Your task to perform on an android device: Open internet settings Image 0: 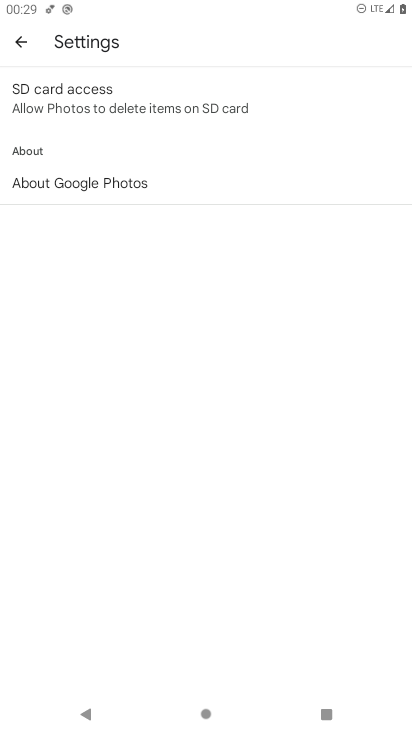
Step 0: press home button
Your task to perform on an android device: Open internet settings Image 1: 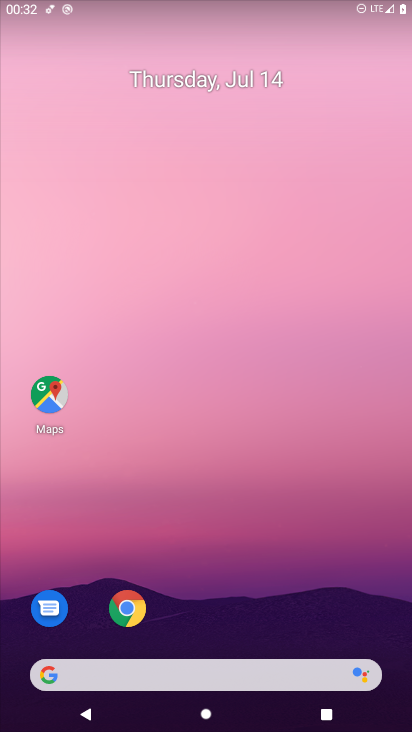
Step 1: press home button
Your task to perform on an android device: Open internet settings Image 2: 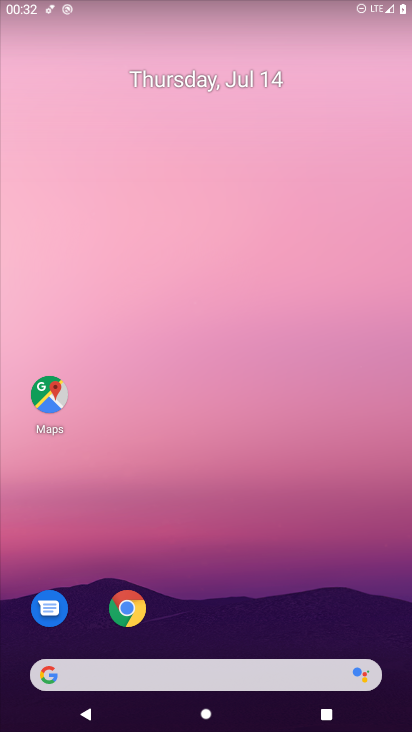
Step 2: drag from (236, 571) to (1, 426)
Your task to perform on an android device: Open internet settings Image 3: 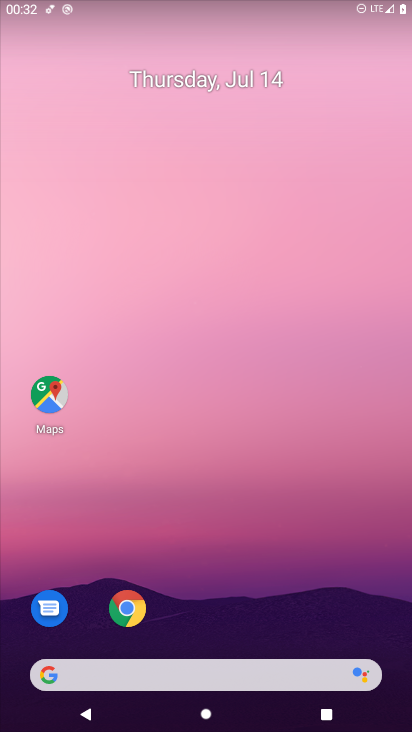
Step 3: drag from (188, 635) to (117, 12)
Your task to perform on an android device: Open internet settings Image 4: 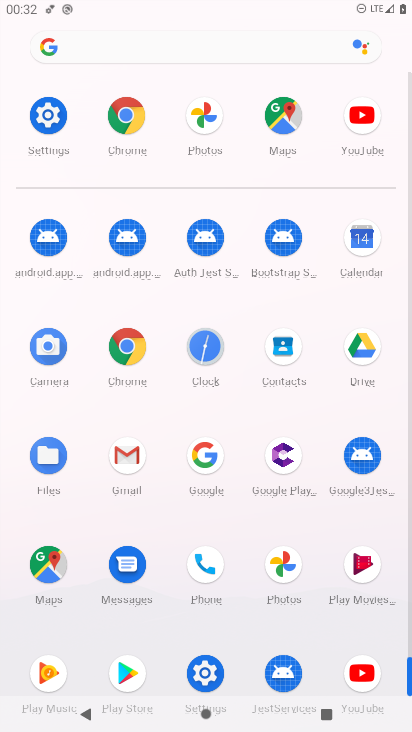
Step 4: click (40, 112)
Your task to perform on an android device: Open internet settings Image 5: 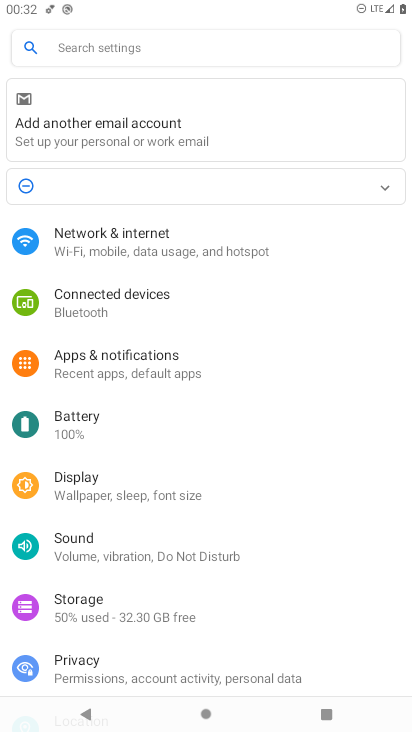
Step 5: click (157, 240)
Your task to perform on an android device: Open internet settings Image 6: 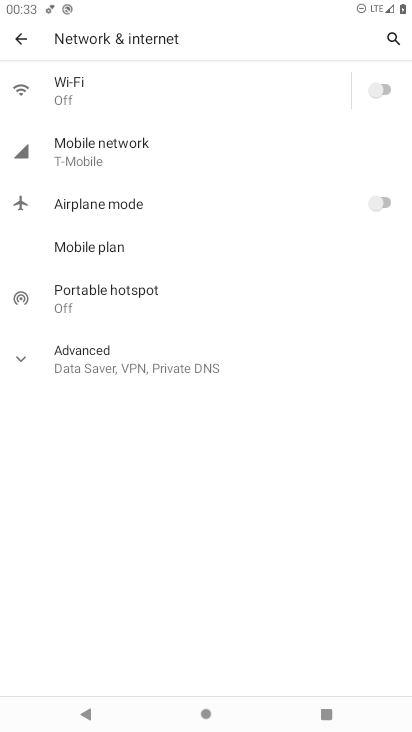
Step 6: task complete